Your task to perform on an android device: toggle airplane mode Image 0: 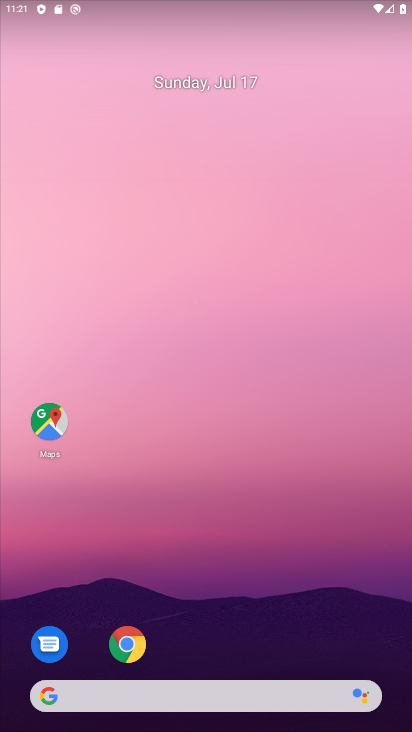
Step 0: drag from (406, 707) to (303, 60)
Your task to perform on an android device: toggle airplane mode Image 1: 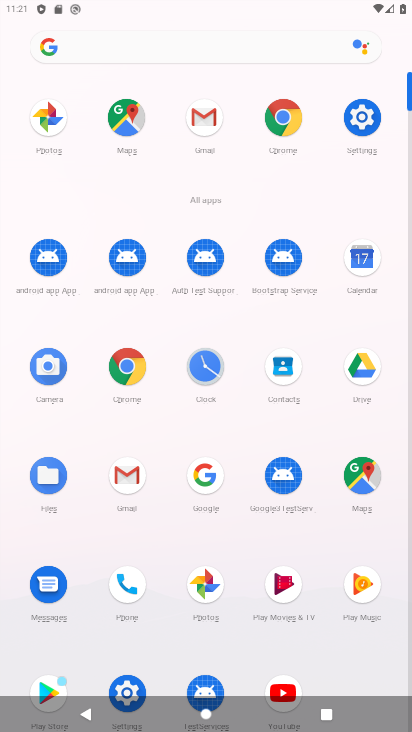
Step 1: click (361, 118)
Your task to perform on an android device: toggle airplane mode Image 2: 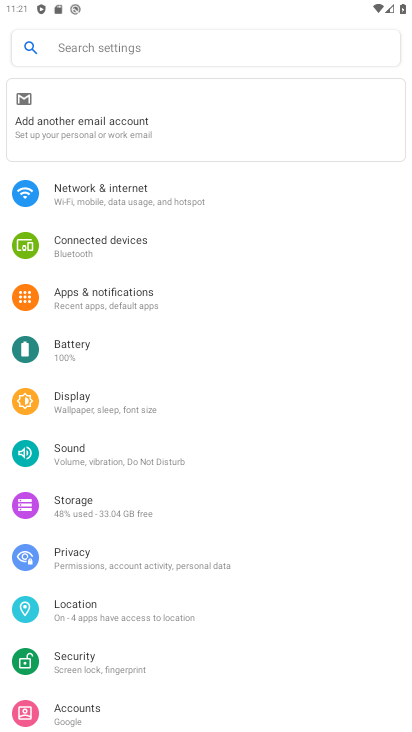
Step 2: click (93, 190)
Your task to perform on an android device: toggle airplane mode Image 3: 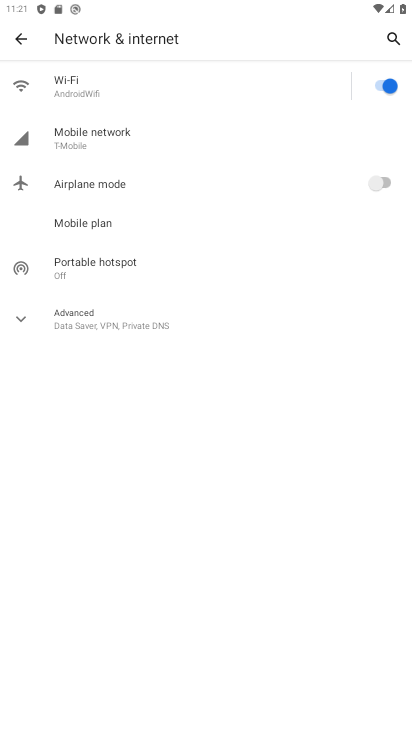
Step 3: click (371, 180)
Your task to perform on an android device: toggle airplane mode Image 4: 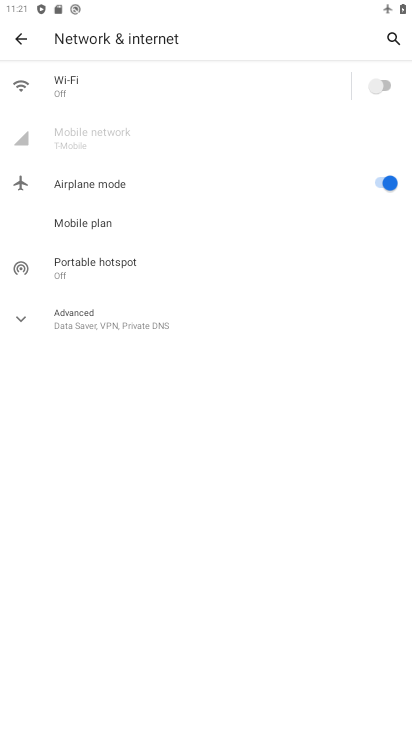
Step 4: task complete